Your task to perform on an android device: Search for pizza restaurants on Maps Image 0: 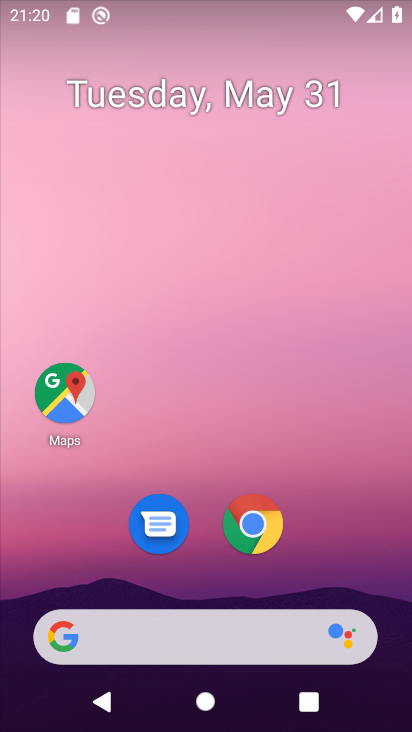
Step 0: click (58, 377)
Your task to perform on an android device: Search for pizza restaurants on Maps Image 1: 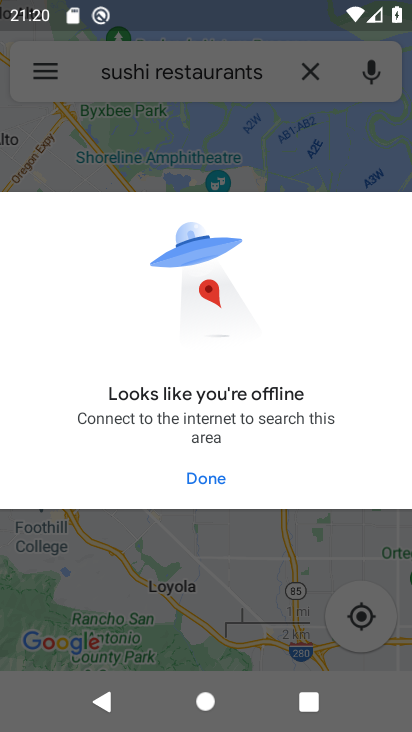
Step 1: click (202, 468)
Your task to perform on an android device: Search for pizza restaurants on Maps Image 2: 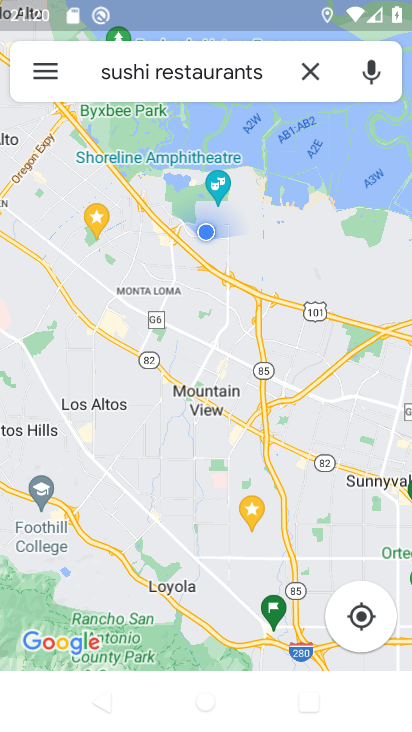
Step 2: click (307, 59)
Your task to perform on an android device: Search for pizza restaurants on Maps Image 3: 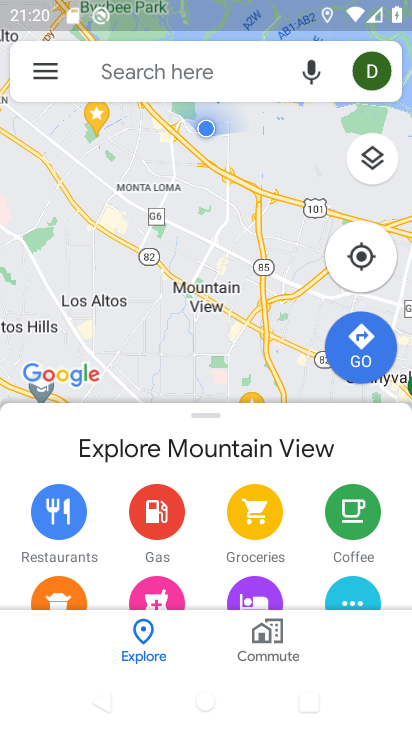
Step 3: click (258, 67)
Your task to perform on an android device: Search for pizza restaurants on Maps Image 4: 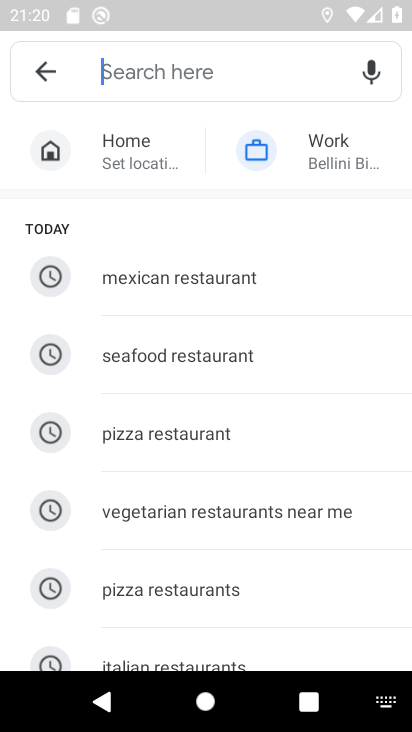
Step 4: click (177, 437)
Your task to perform on an android device: Search for pizza restaurants on Maps Image 5: 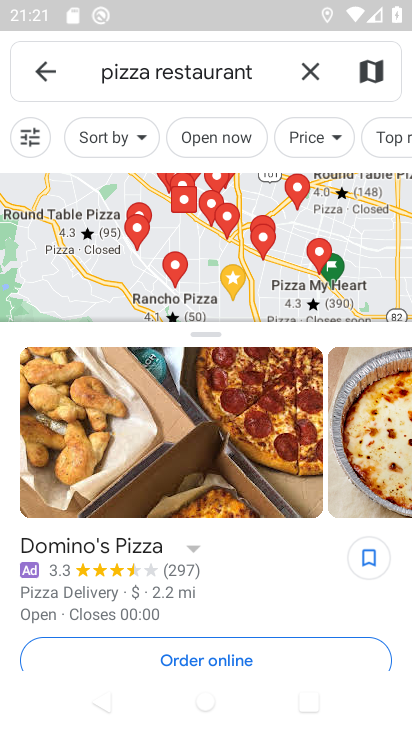
Step 5: task complete